Your task to perform on an android device: Go to ESPN.com Image 0: 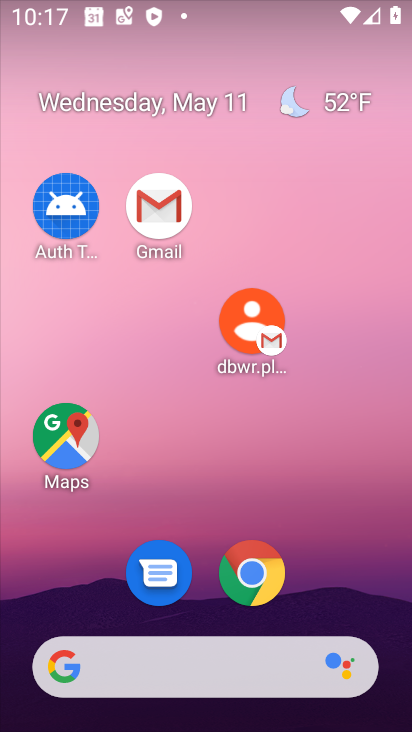
Step 0: drag from (379, 658) to (96, 132)
Your task to perform on an android device: Go to ESPN.com Image 1: 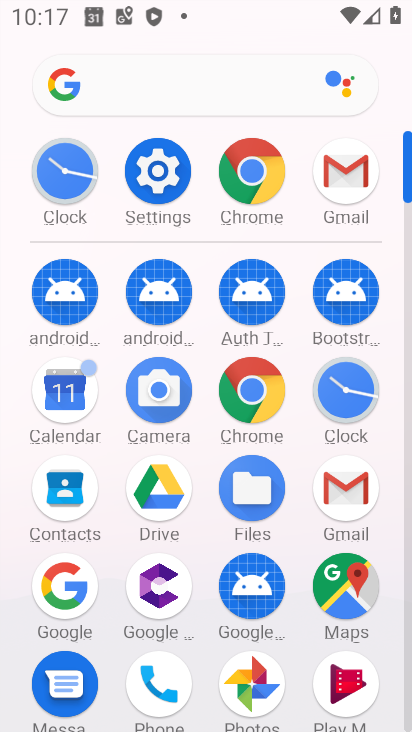
Step 1: click (250, 376)
Your task to perform on an android device: Go to ESPN.com Image 2: 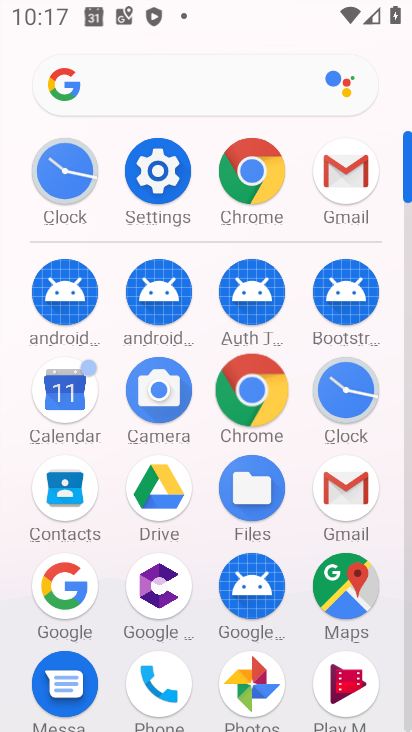
Step 2: click (251, 376)
Your task to perform on an android device: Go to ESPN.com Image 3: 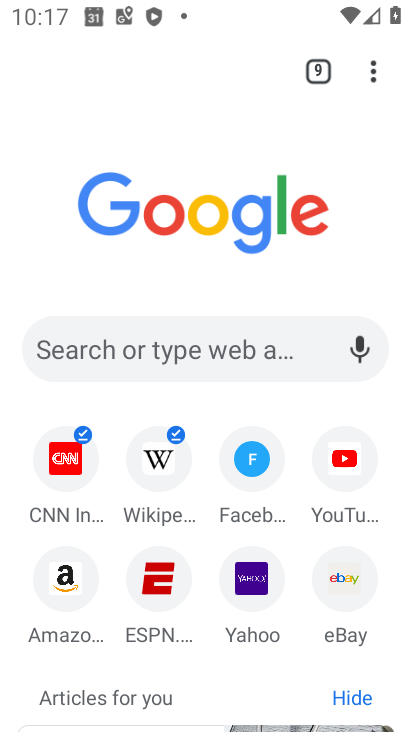
Step 3: click (158, 576)
Your task to perform on an android device: Go to ESPN.com Image 4: 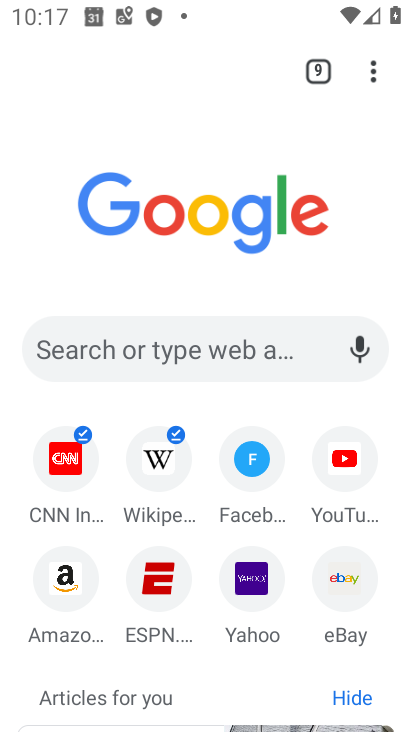
Step 4: click (153, 568)
Your task to perform on an android device: Go to ESPN.com Image 5: 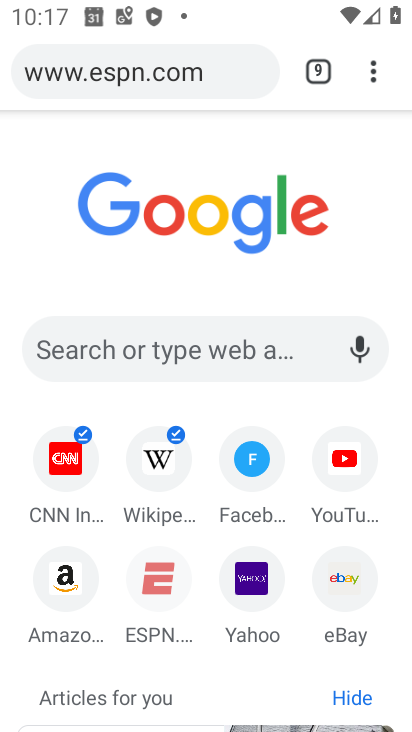
Step 5: click (153, 568)
Your task to perform on an android device: Go to ESPN.com Image 6: 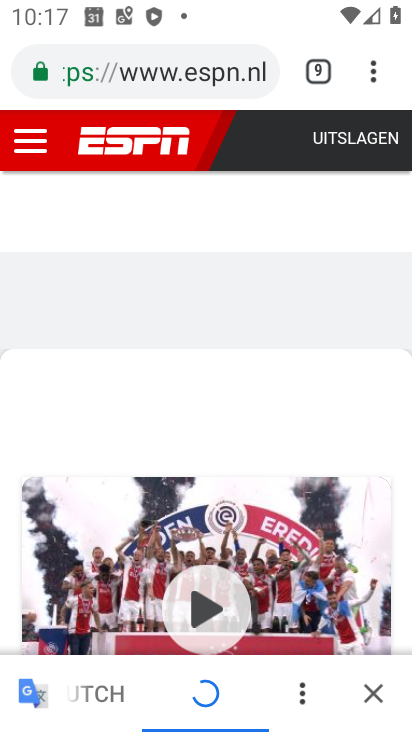
Step 6: task complete